Your task to perform on an android device: move an email to a new category in the gmail app Image 0: 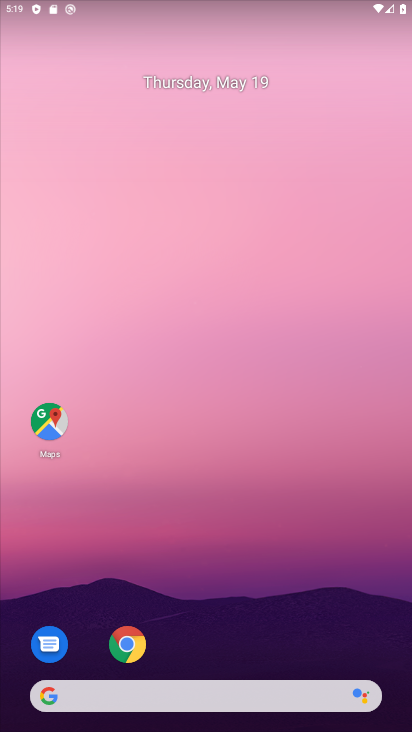
Step 0: drag from (358, 718) to (411, 374)
Your task to perform on an android device: move an email to a new category in the gmail app Image 1: 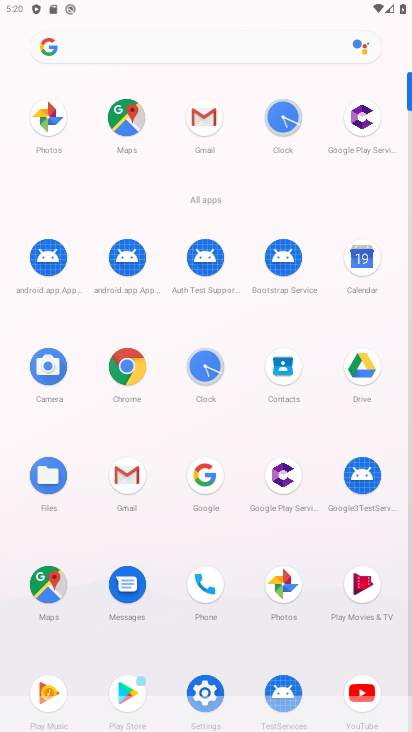
Step 1: click (121, 456)
Your task to perform on an android device: move an email to a new category in the gmail app Image 2: 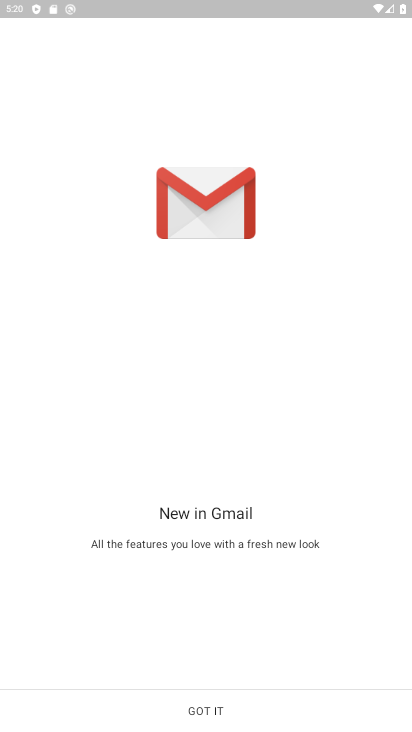
Step 2: click (205, 722)
Your task to perform on an android device: move an email to a new category in the gmail app Image 3: 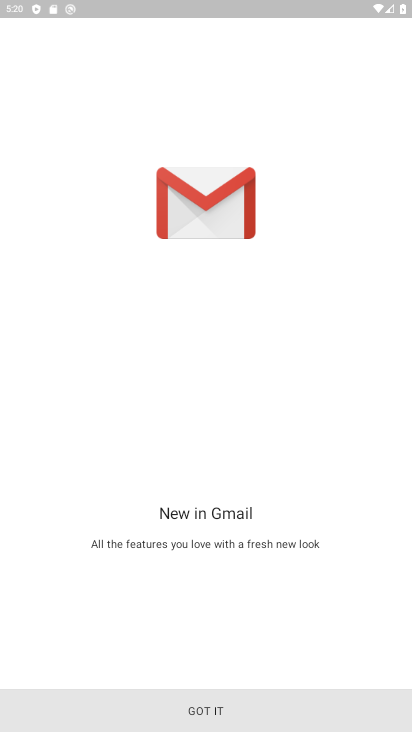
Step 3: click (205, 714)
Your task to perform on an android device: move an email to a new category in the gmail app Image 4: 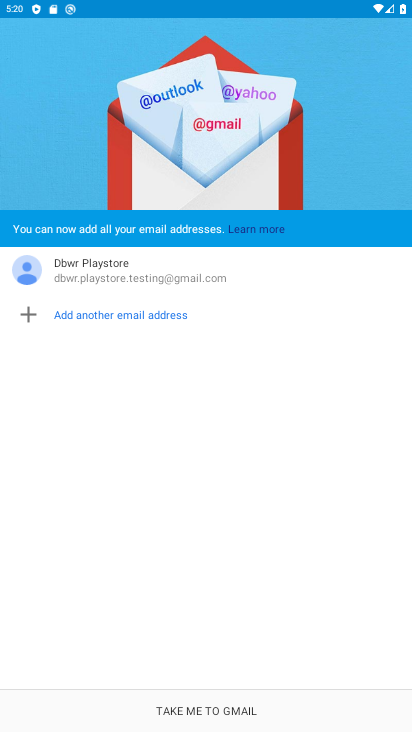
Step 4: click (243, 704)
Your task to perform on an android device: move an email to a new category in the gmail app Image 5: 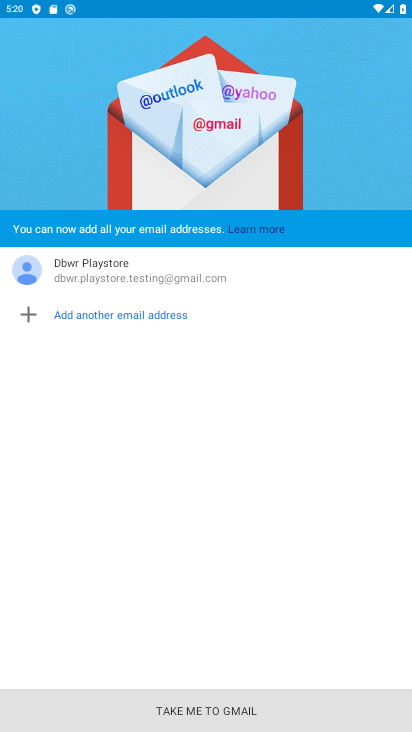
Step 5: click (245, 701)
Your task to perform on an android device: move an email to a new category in the gmail app Image 6: 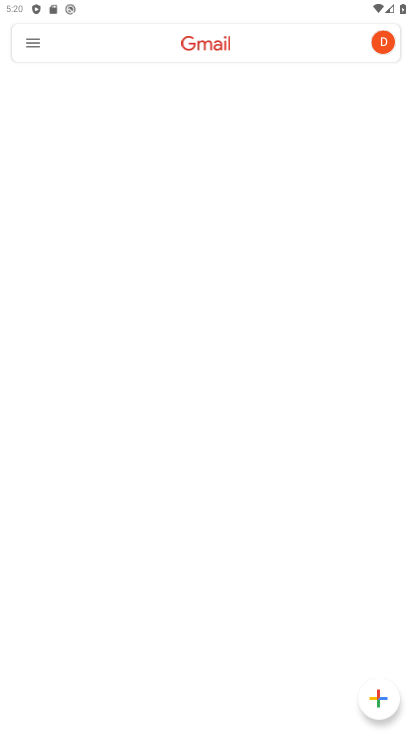
Step 6: click (222, 692)
Your task to perform on an android device: move an email to a new category in the gmail app Image 7: 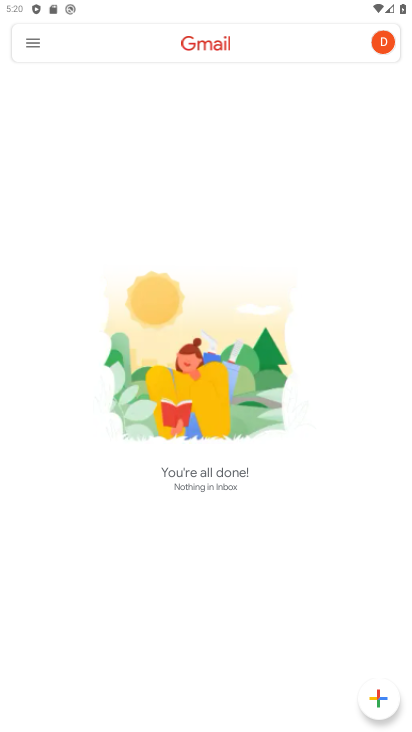
Step 7: click (224, 694)
Your task to perform on an android device: move an email to a new category in the gmail app Image 8: 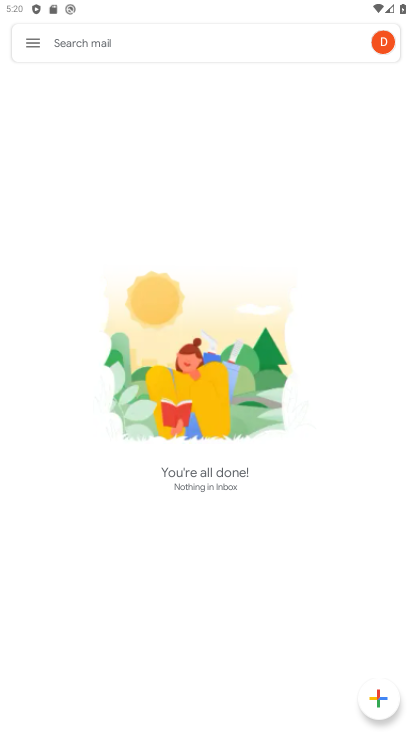
Step 8: click (37, 35)
Your task to perform on an android device: move an email to a new category in the gmail app Image 9: 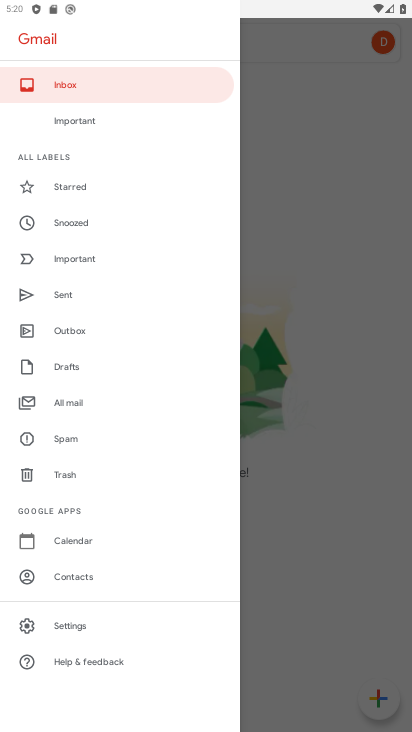
Step 9: click (64, 403)
Your task to perform on an android device: move an email to a new category in the gmail app Image 10: 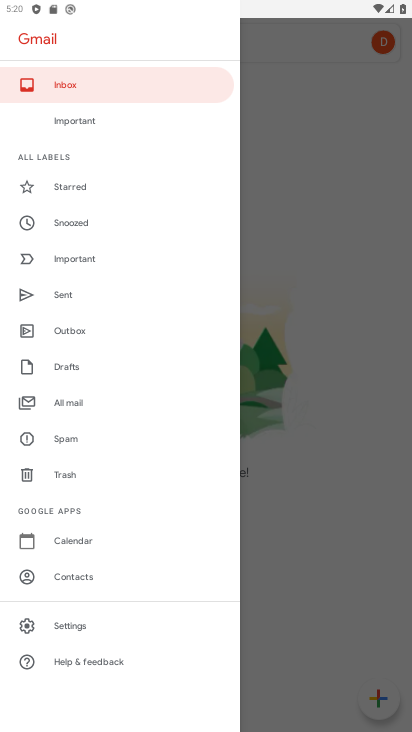
Step 10: click (66, 402)
Your task to perform on an android device: move an email to a new category in the gmail app Image 11: 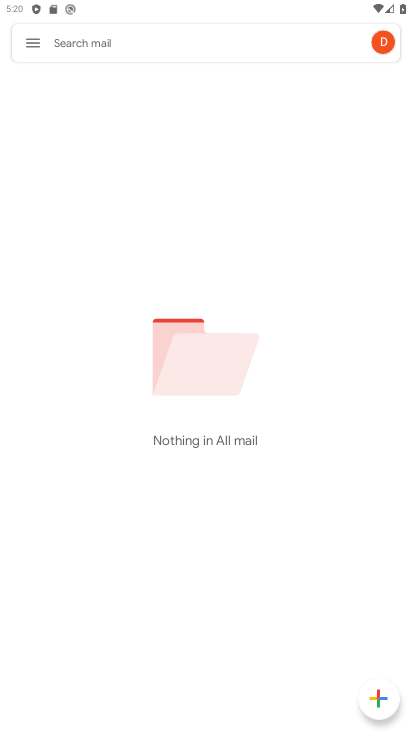
Step 11: task complete